Your task to perform on an android device: open app "Google Translate" (install if not already installed) Image 0: 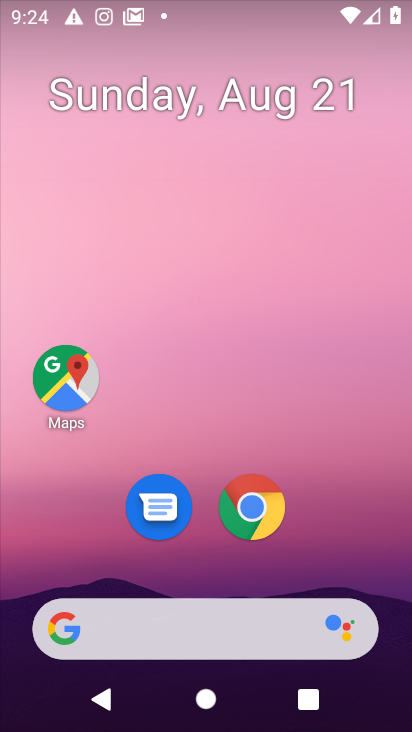
Step 0: drag from (221, 511) to (183, 1)
Your task to perform on an android device: open app "Google Translate" (install if not already installed) Image 1: 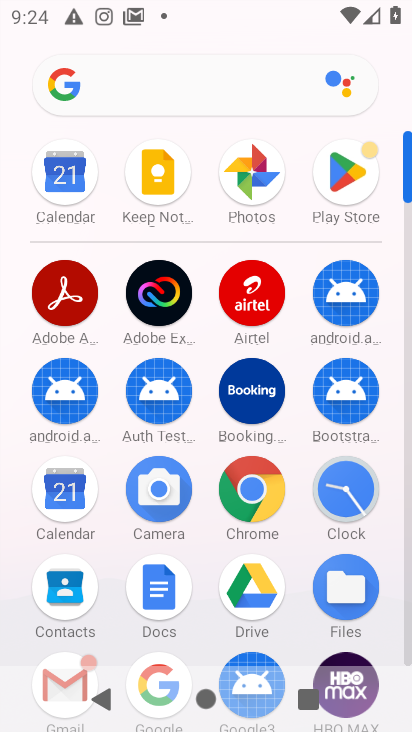
Step 1: click (359, 179)
Your task to perform on an android device: open app "Google Translate" (install if not already installed) Image 2: 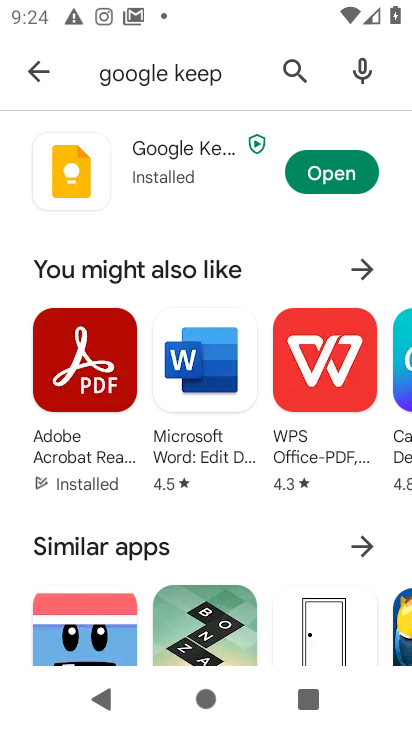
Step 2: click (30, 84)
Your task to perform on an android device: open app "Google Translate" (install if not already installed) Image 3: 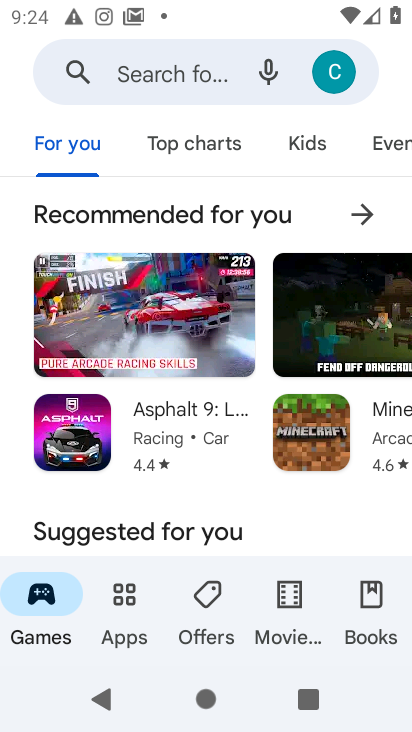
Step 3: click (147, 60)
Your task to perform on an android device: open app "Google Translate" (install if not already installed) Image 4: 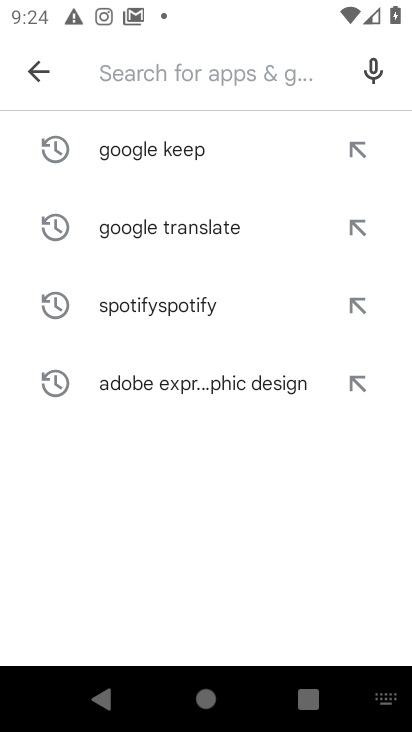
Step 4: type "Google Translate"
Your task to perform on an android device: open app "Google Translate" (install if not already installed) Image 5: 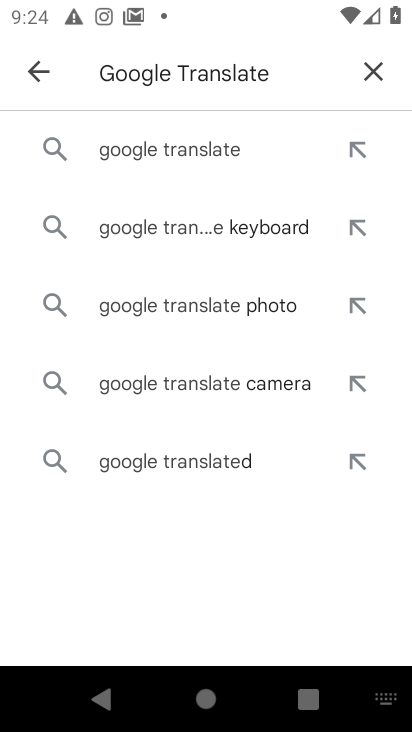
Step 5: click (211, 144)
Your task to perform on an android device: open app "Google Translate" (install if not already installed) Image 6: 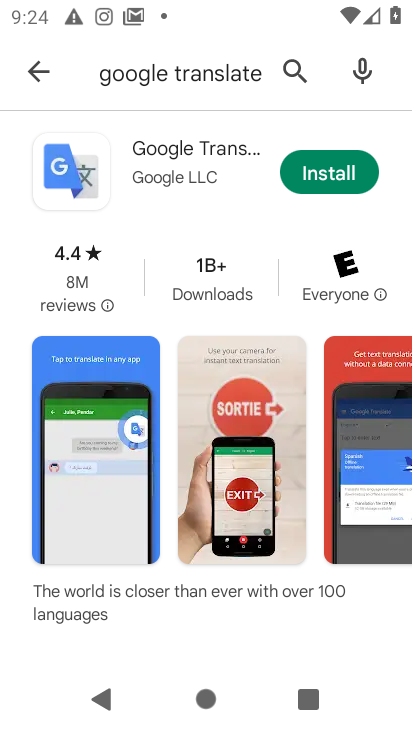
Step 6: click (332, 169)
Your task to perform on an android device: open app "Google Translate" (install if not already installed) Image 7: 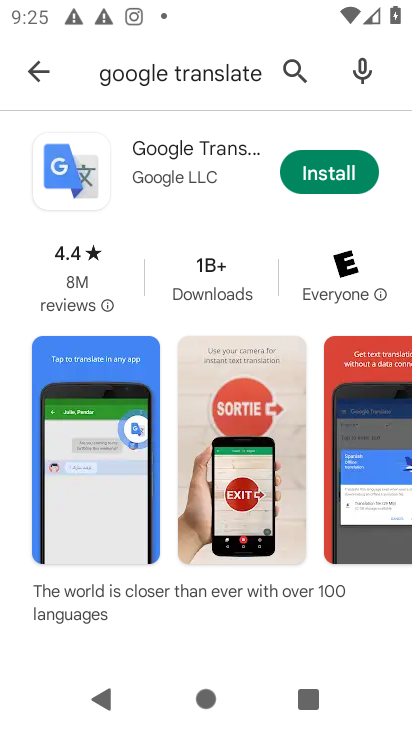
Step 7: click (322, 168)
Your task to perform on an android device: open app "Google Translate" (install if not already installed) Image 8: 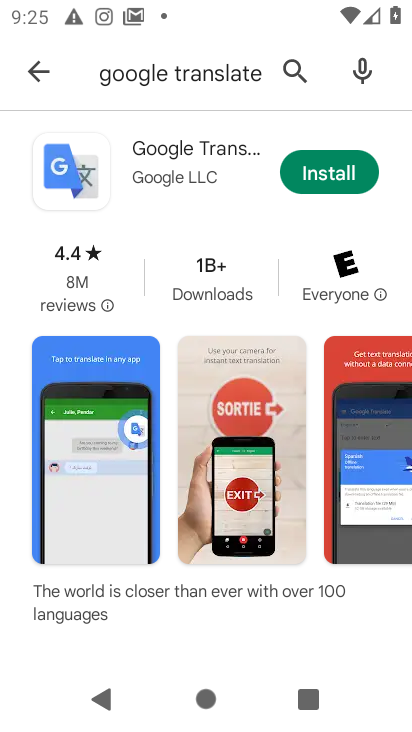
Step 8: task complete